Your task to perform on an android device: turn off notifications settings in the gmail app Image 0: 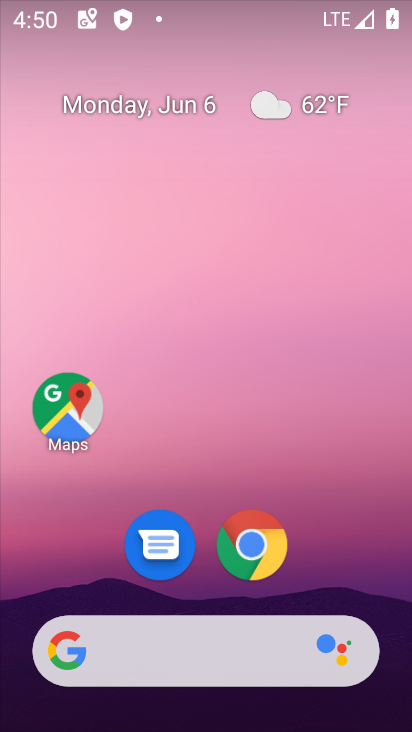
Step 0: drag from (189, 719) to (194, 137)
Your task to perform on an android device: turn off notifications settings in the gmail app Image 1: 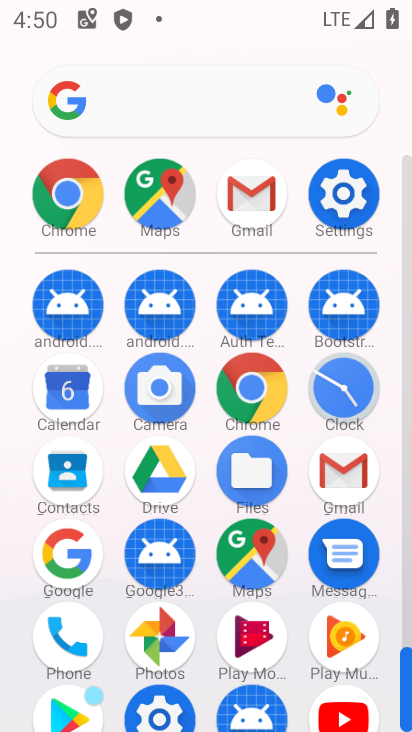
Step 1: click (344, 479)
Your task to perform on an android device: turn off notifications settings in the gmail app Image 2: 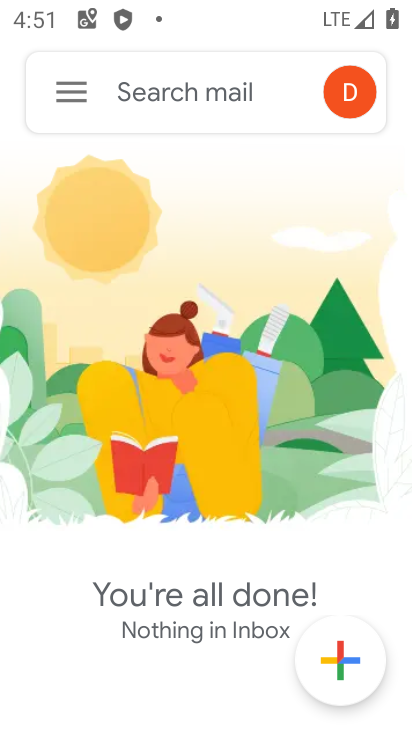
Step 2: click (78, 92)
Your task to perform on an android device: turn off notifications settings in the gmail app Image 3: 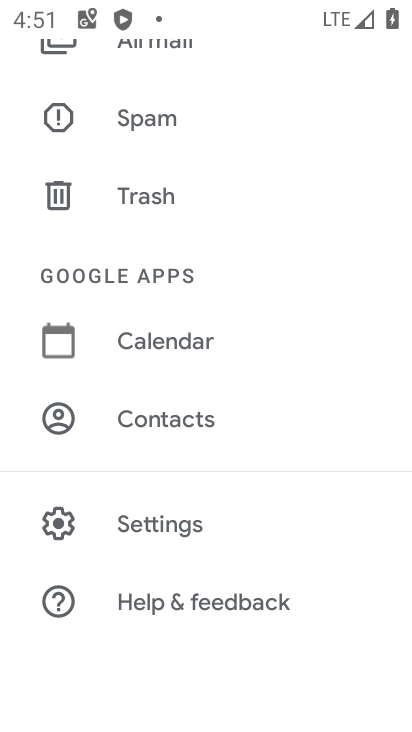
Step 3: click (147, 521)
Your task to perform on an android device: turn off notifications settings in the gmail app Image 4: 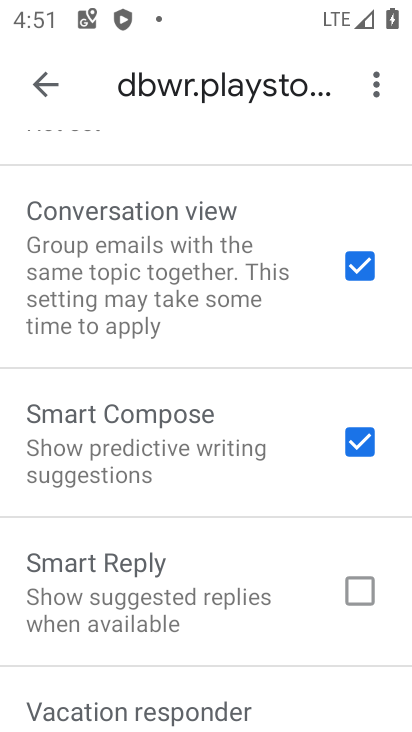
Step 4: task complete